Your task to perform on an android device: turn off wifi Image 0: 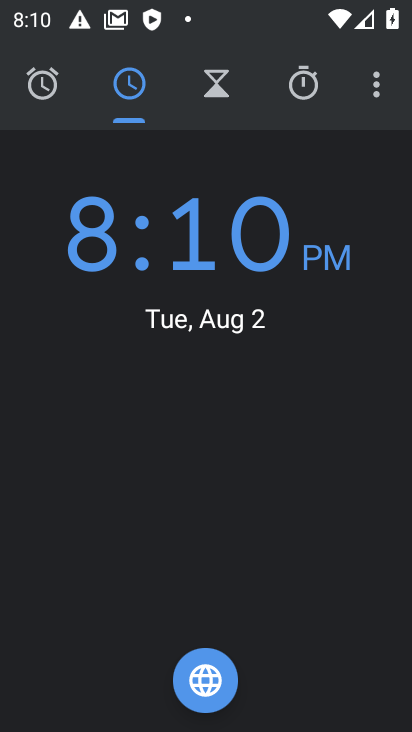
Step 0: press home button
Your task to perform on an android device: turn off wifi Image 1: 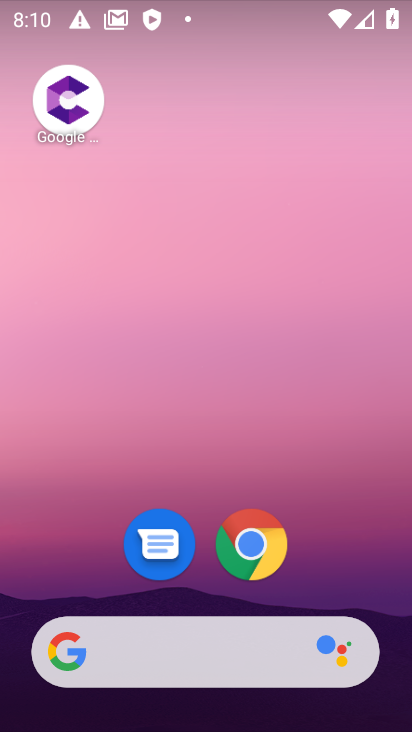
Step 1: drag from (219, 495) to (194, 132)
Your task to perform on an android device: turn off wifi Image 2: 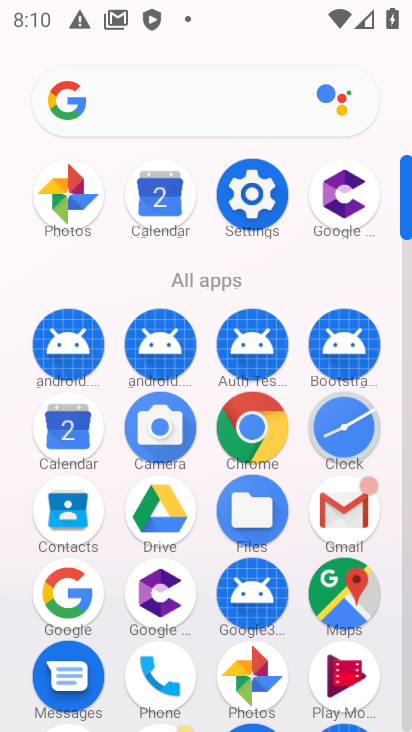
Step 2: click (248, 164)
Your task to perform on an android device: turn off wifi Image 3: 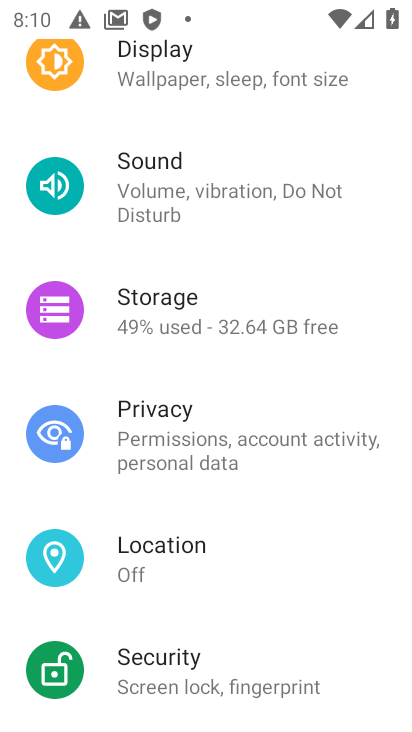
Step 3: drag from (190, 144) to (216, 608)
Your task to perform on an android device: turn off wifi Image 4: 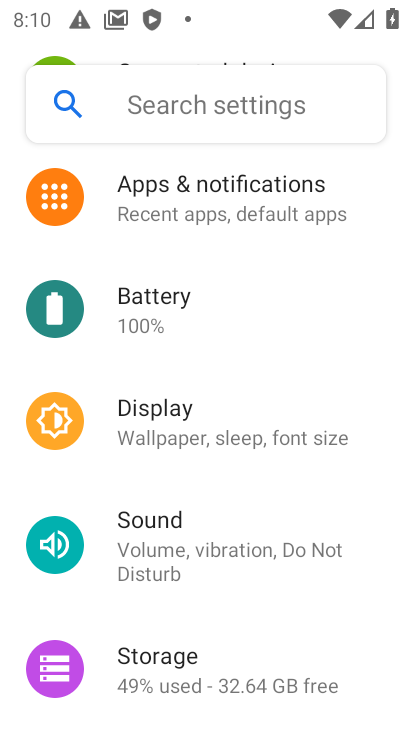
Step 4: drag from (184, 196) to (186, 545)
Your task to perform on an android device: turn off wifi Image 5: 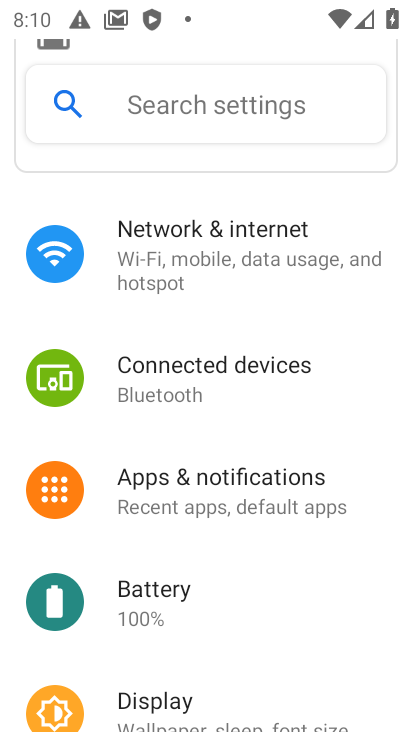
Step 5: click (186, 254)
Your task to perform on an android device: turn off wifi Image 6: 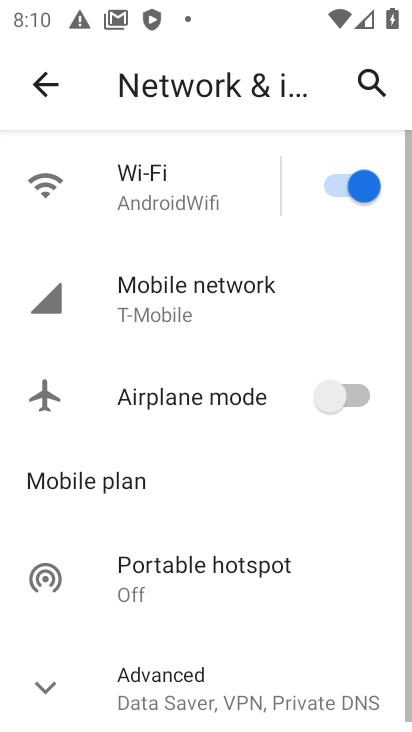
Step 6: click (307, 181)
Your task to perform on an android device: turn off wifi Image 7: 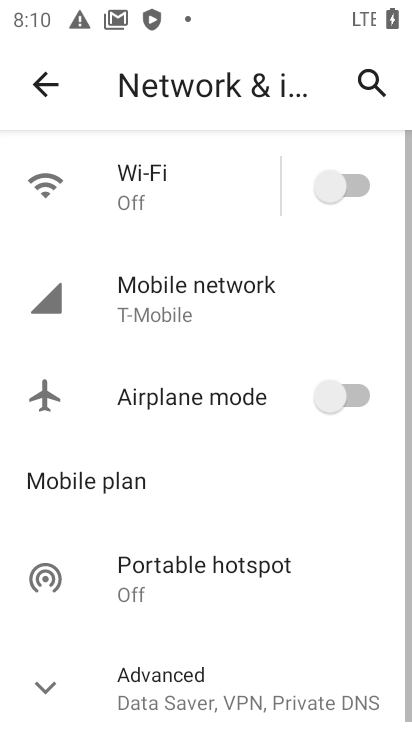
Step 7: task complete